Your task to perform on an android device: remove spam from my inbox in the gmail app Image 0: 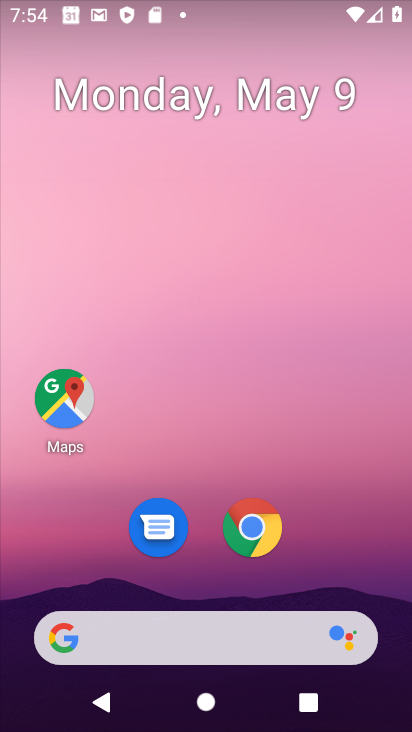
Step 0: drag from (192, 621) to (193, 188)
Your task to perform on an android device: remove spam from my inbox in the gmail app Image 1: 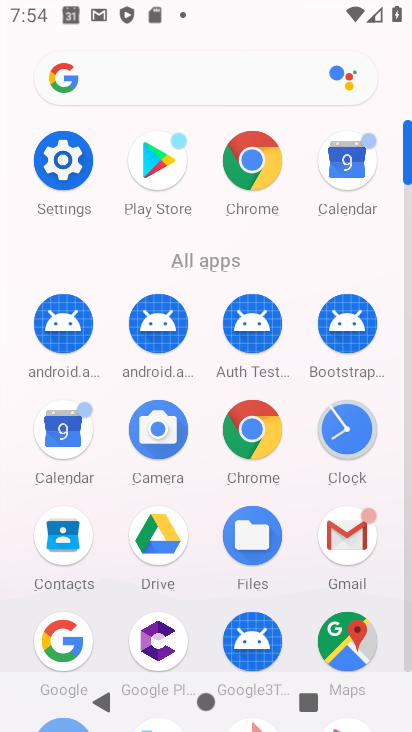
Step 1: click (352, 557)
Your task to perform on an android device: remove spam from my inbox in the gmail app Image 2: 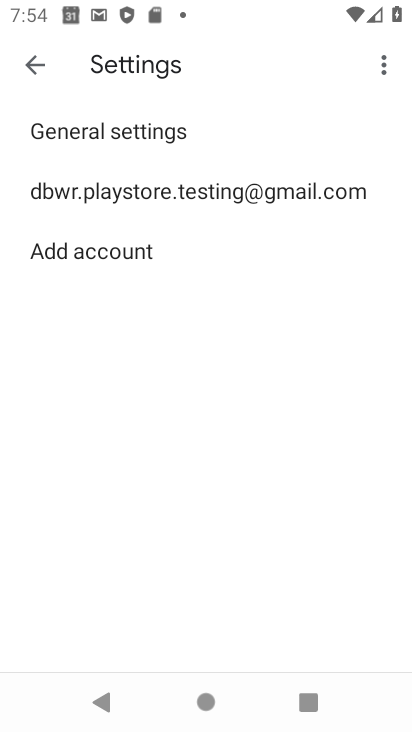
Step 2: click (36, 59)
Your task to perform on an android device: remove spam from my inbox in the gmail app Image 3: 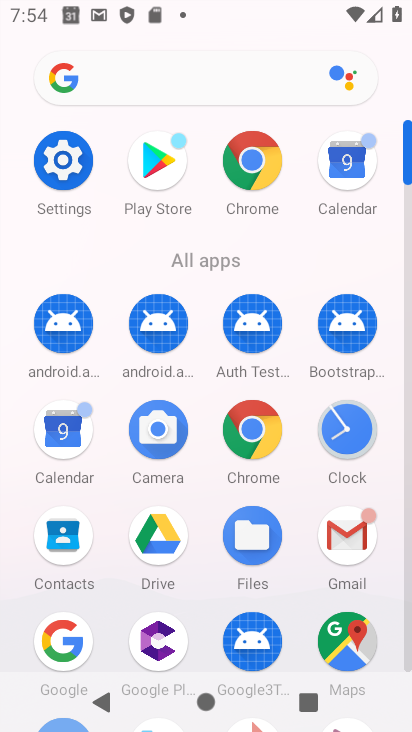
Step 3: click (346, 532)
Your task to perform on an android device: remove spam from my inbox in the gmail app Image 4: 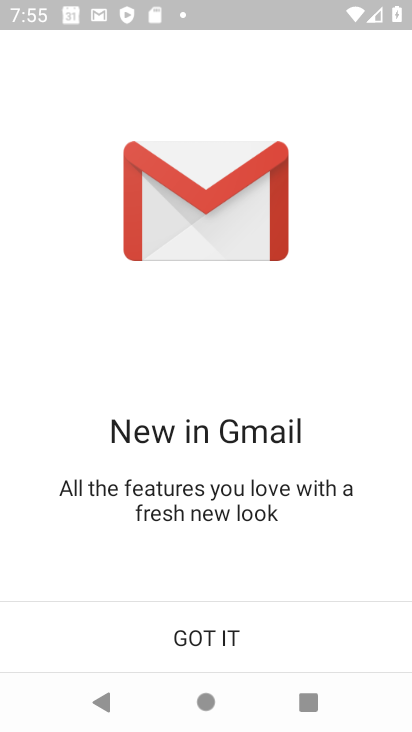
Step 4: click (242, 646)
Your task to perform on an android device: remove spam from my inbox in the gmail app Image 5: 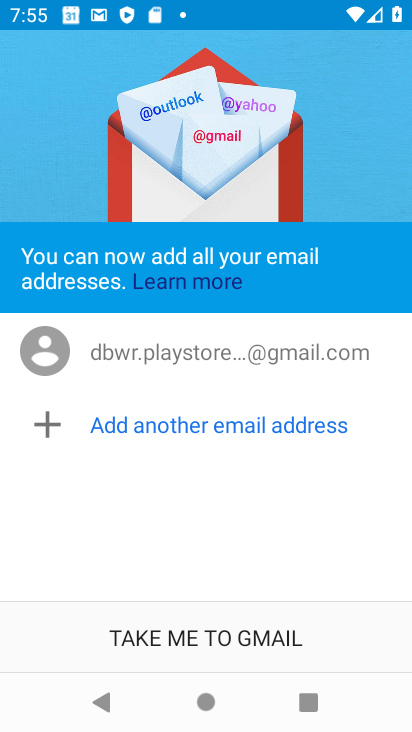
Step 5: click (240, 637)
Your task to perform on an android device: remove spam from my inbox in the gmail app Image 6: 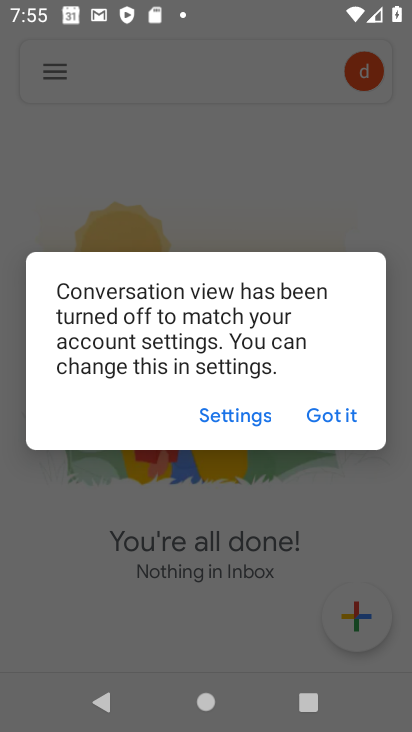
Step 6: click (333, 408)
Your task to perform on an android device: remove spam from my inbox in the gmail app Image 7: 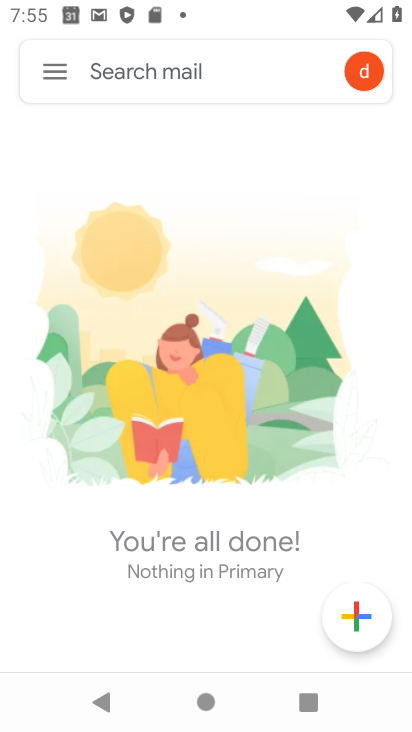
Step 7: click (56, 82)
Your task to perform on an android device: remove spam from my inbox in the gmail app Image 8: 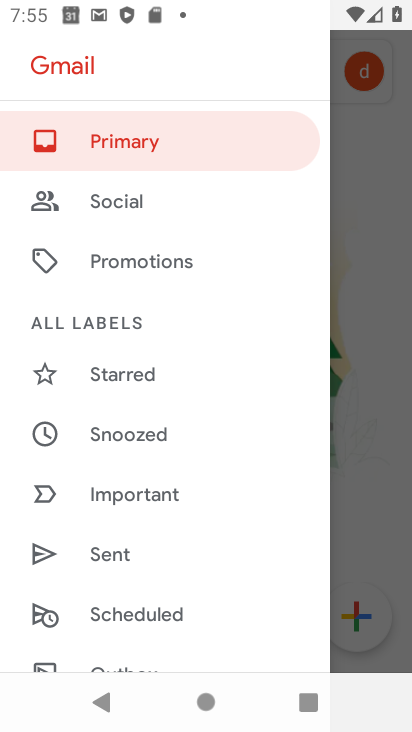
Step 8: drag from (114, 572) to (148, 377)
Your task to perform on an android device: remove spam from my inbox in the gmail app Image 9: 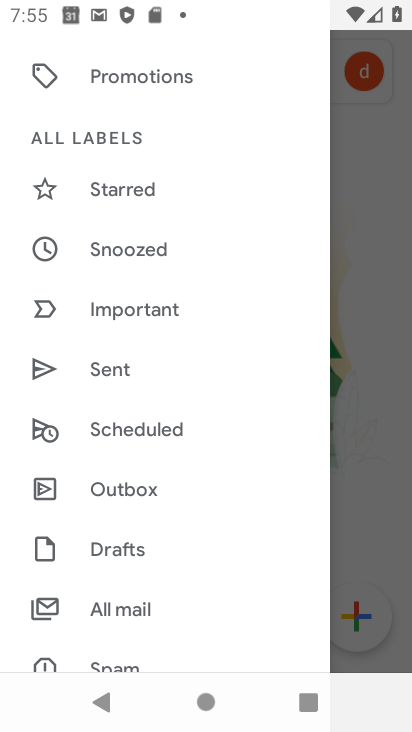
Step 9: click (149, 654)
Your task to perform on an android device: remove spam from my inbox in the gmail app Image 10: 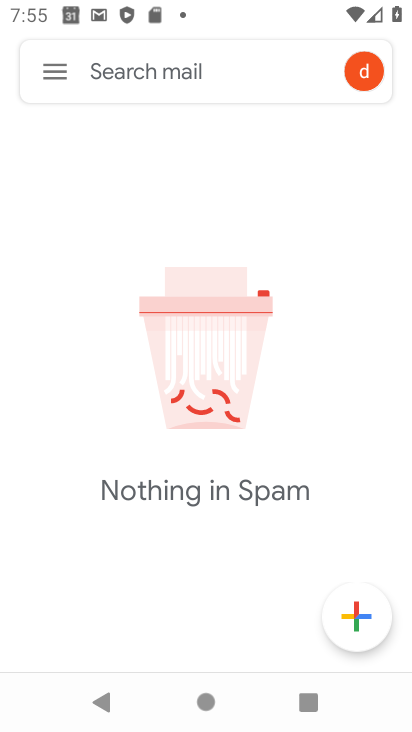
Step 10: task complete